Your task to perform on an android device: change notification settings in the gmail app Image 0: 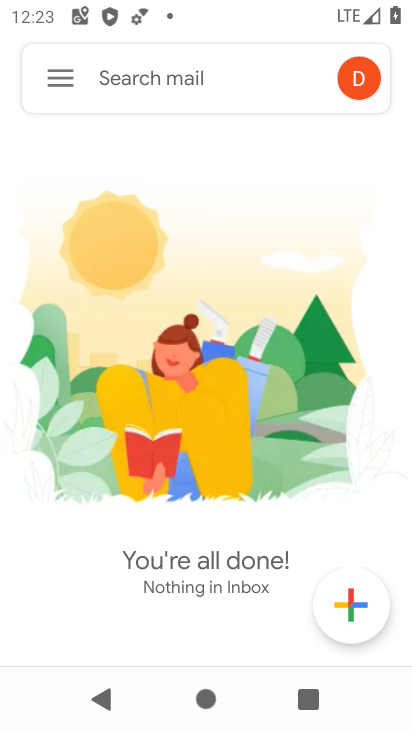
Step 0: click (47, 65)
Your task to perform on an android device: change notification settings in the gmail app Image 1: 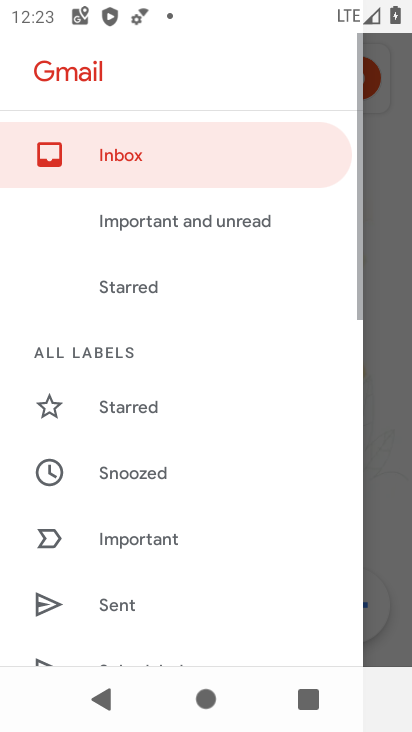
Step 1: drag from (132, 551) to (185, 170)
Your task to perform on an android device: change notification settings in the gmail app Image 2: 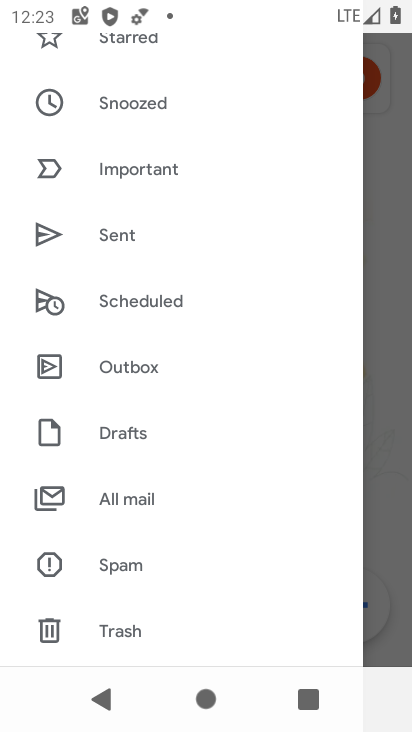
Step 2: drag from (130, 577) to (144, 346)
Your task to perform on an android device: change notification settings in the gmail app Image 3: 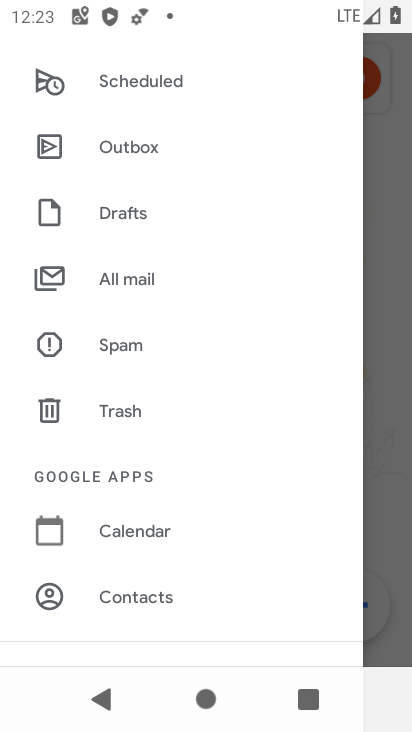
Step 3: drag from (144, 607) to (187, 314)
Your task to perform on an android device: change notification settings in the gmail app Image 4: 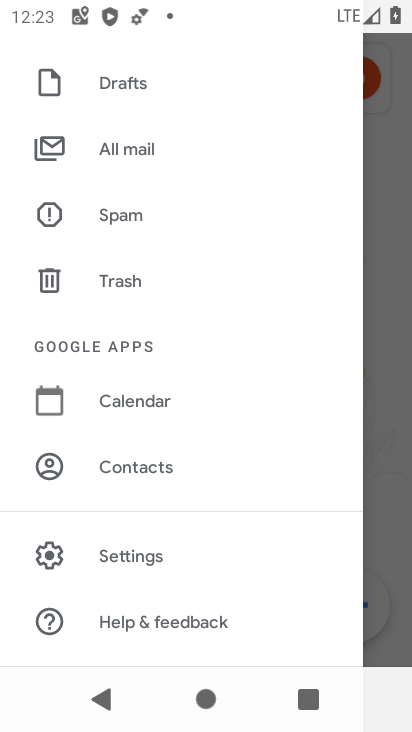
Step 4: click (147, 561)
Your task to perform on an android device: change notification settings in the gmail app Image 5: 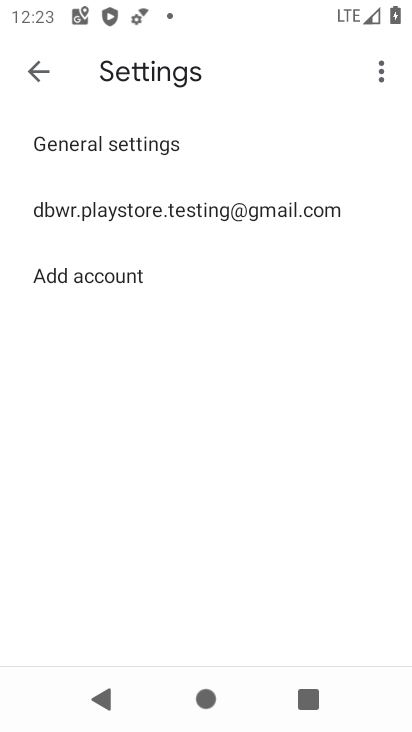
Step 5: click (153, 147)
Your task to perform on an android device: change notification settings in the gmail app Image 6: 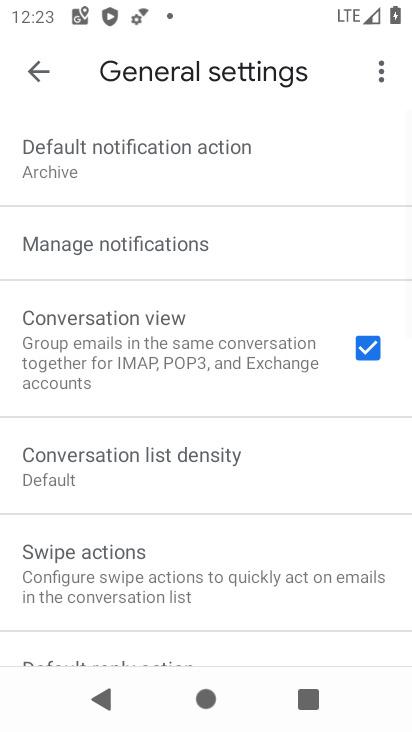
Step 6: click (149, 244)
Your task to perform on an android device: change notification settings in the gmail app Image 7: 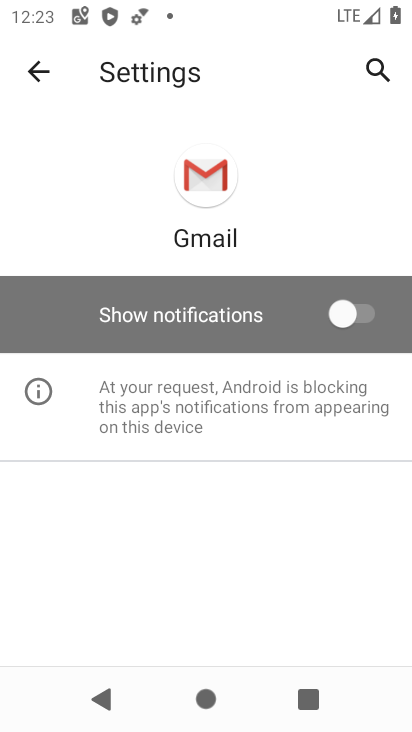
Step 7: click (314, 323)
Your task to perform on an android device: change notification settings in the gmail app Image 8: 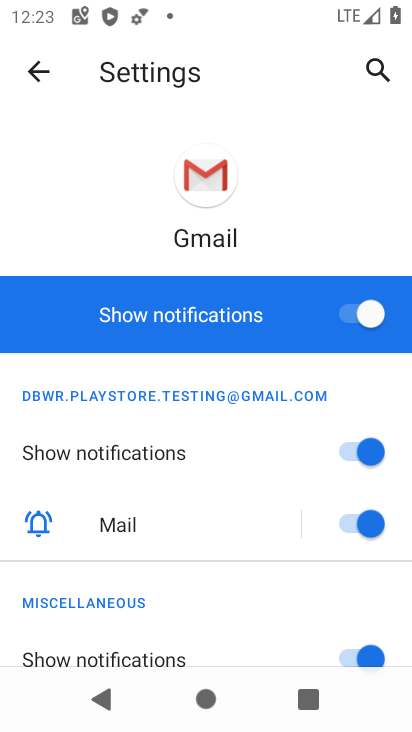
Step 8: task complete